Your task to perform on an android device: Open display settings Image 0: 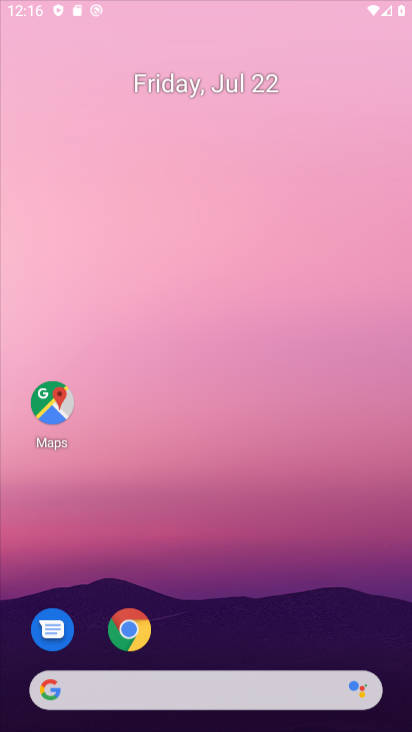
Step 0: press home button
Your task to perform on an android device: Open display settings Image 1: 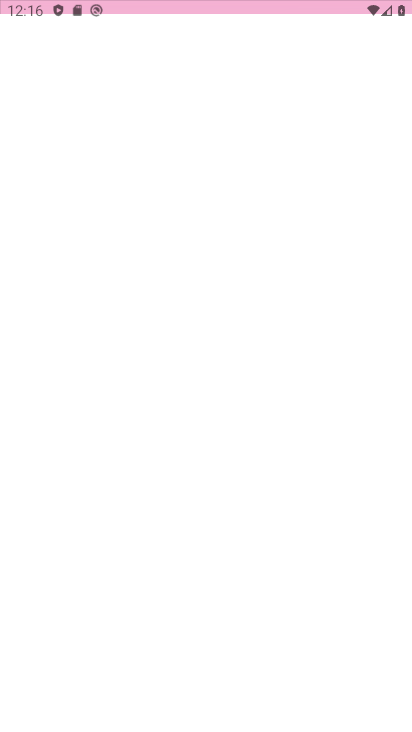
Step 1: drag from (315, 653) to (274, 264)
Your task to perform on an android device: Open display settings Image 2: 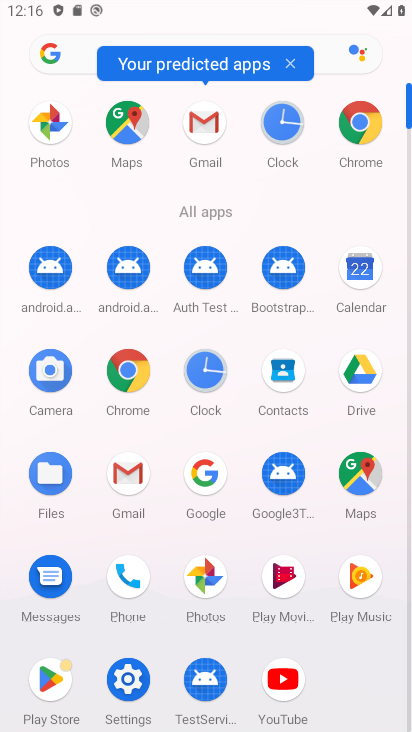
Step 2: drag from (366, 3) to (382, 191)
Your task to perform on an android device: Open display settings Image 3: 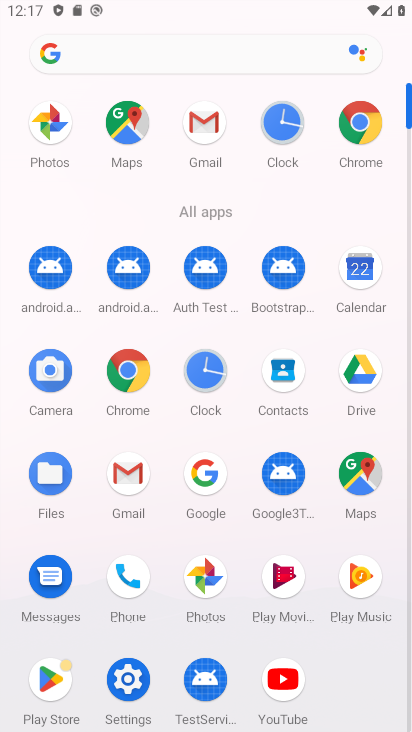
Step 3: click (132, 674)
Your task to perform on an android device: Open display settings Image 4: 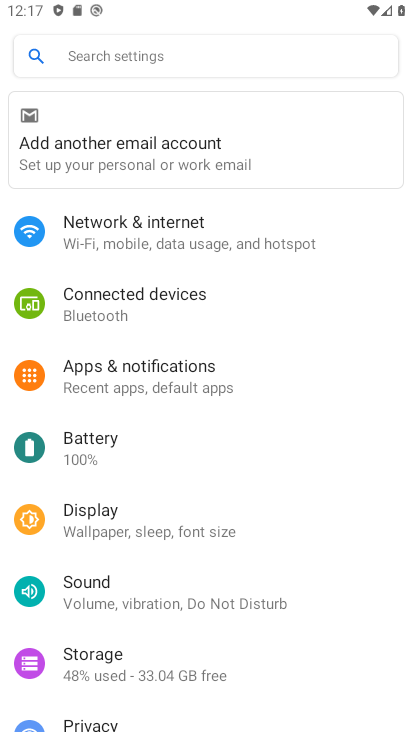
Step 4: click (190, 526)
Your task to perform on an android device: Open display settings Image 5: 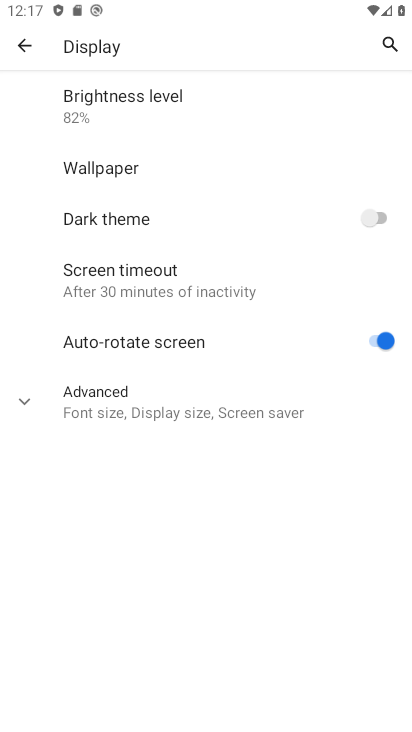
Step 5: task complete